Your task to perform on an android device: turn on sleep mode Image 0: 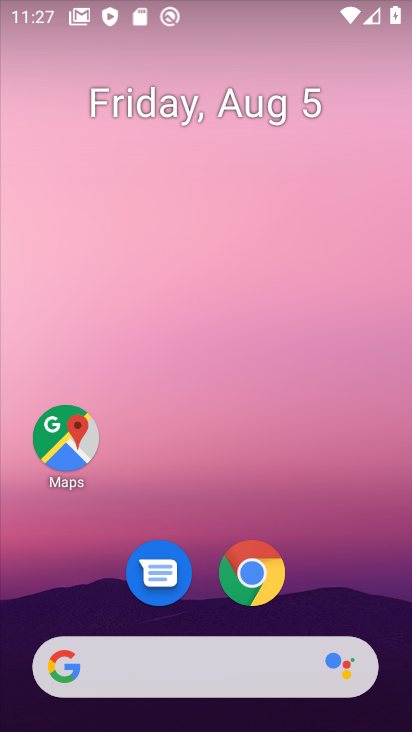
Step 0: drag from (220, 478) to (300, 97)
Your task to perform on an android device: turn on sleep mode Image 1: 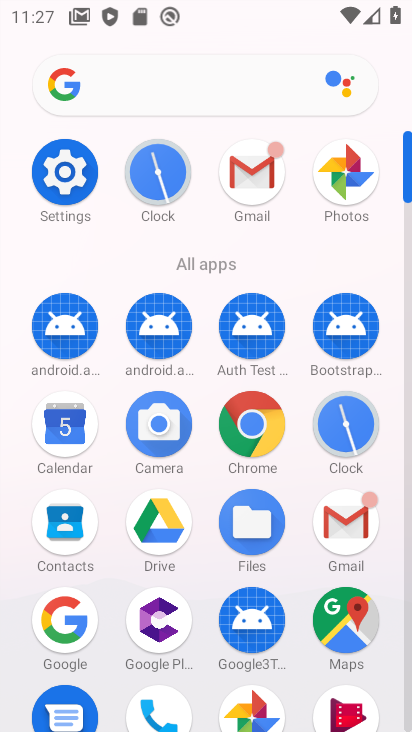
Step 1: click (61, 181)
Your task to perform on an android device: turn on sleep mode Image 2: 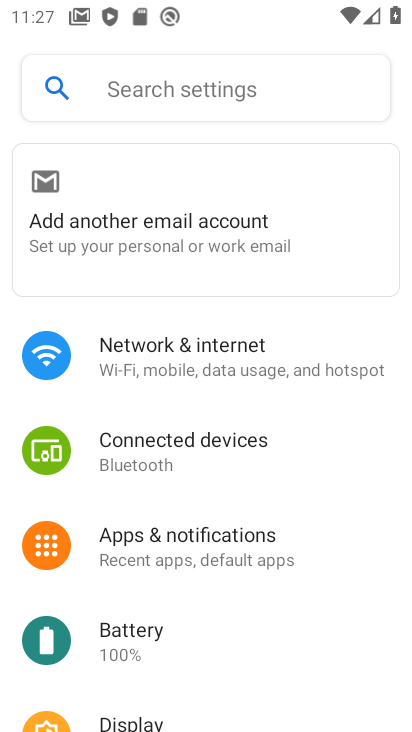
Step 2: task complete